Your task to perform on an android device: turn on showing notifications on the lock screen Image 0: 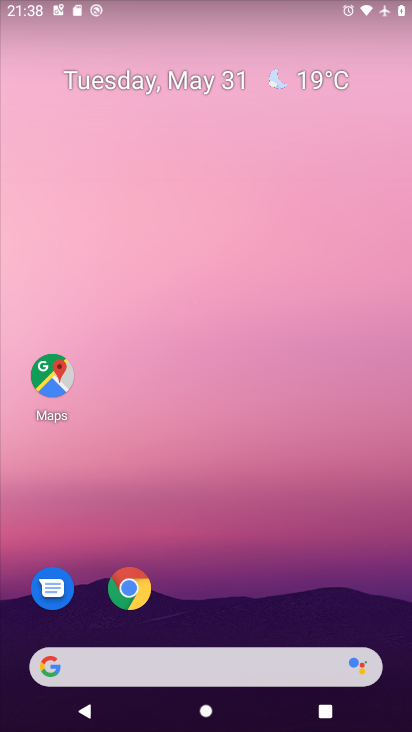
Step 0: press home button
Your task to perform on an android device: turn on showing notifications on the lock screen Image 1: 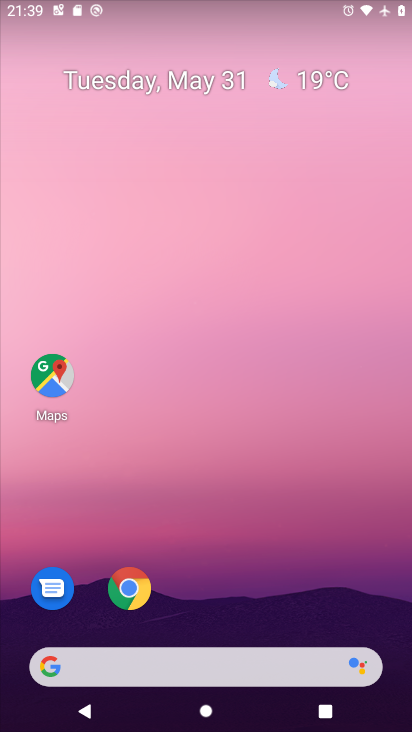
Step 1: drag from (177, 665) to (334, 56)
Your task to perform on an android device: turn on showing notifications on the lock screen Image 2: 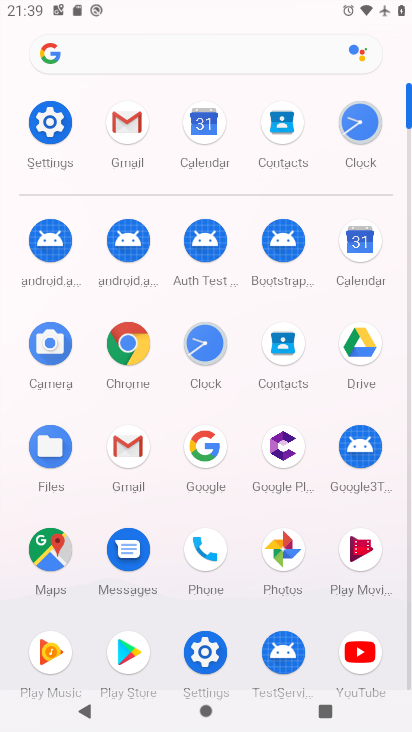
Step 2: click (49, 127)
Your task to perform on an android device: turn on showing notifications on the lock screen Image 3: 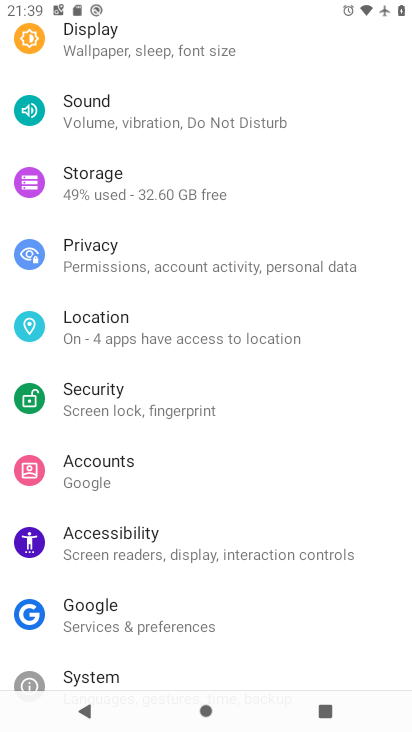
Step 3: drag from (325, 167) to (307, 581)
Your task to perform on an android device: turn on showing notifications on the lock screen Image 4: 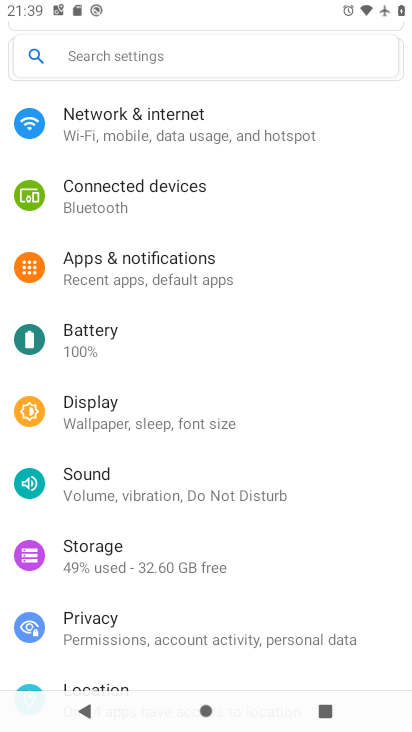
Step 4: click (155, 254)
Your task to perform on an android device: turn on showing notifications on the lock screen Image 5: 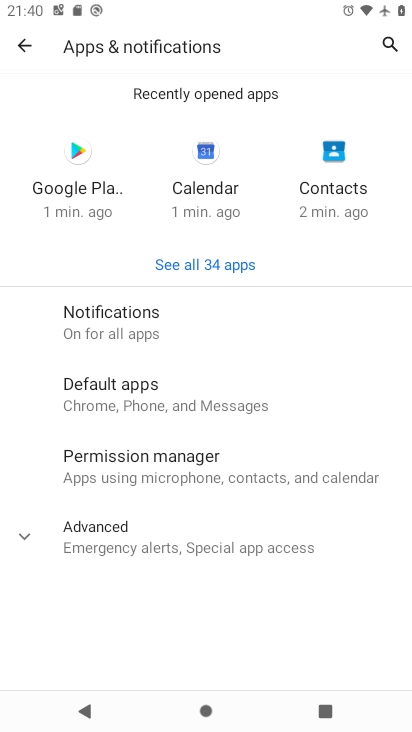
Step 5: click (115, 321)
Your task to perform on an android device: turn on showing notifications on the lock screen Image 6: 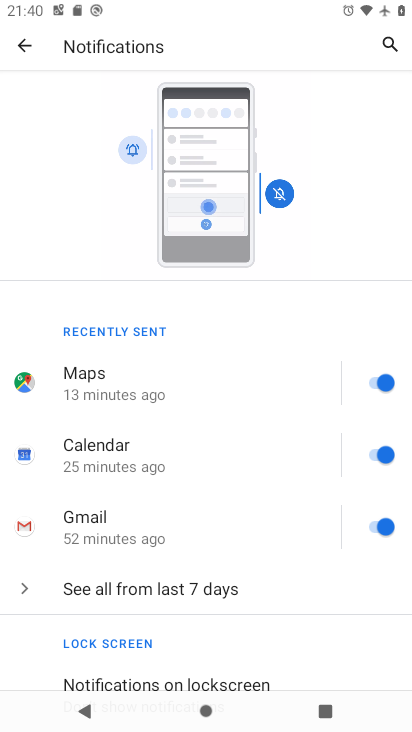
Step 6: drag from (246, 424) to (293, 240)
Your task to perform on an android device: turn on showing notifications on the lock screen Image 7: 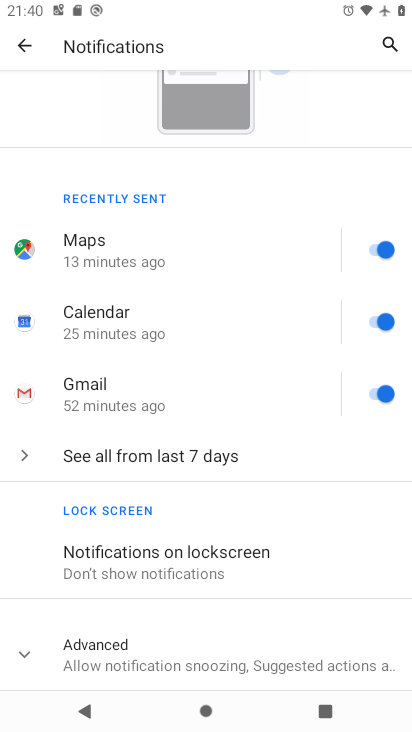
Step 7: click (174, 562)
Your task to perform on an android device: turn on showing notifications on the lock screen Image 8: 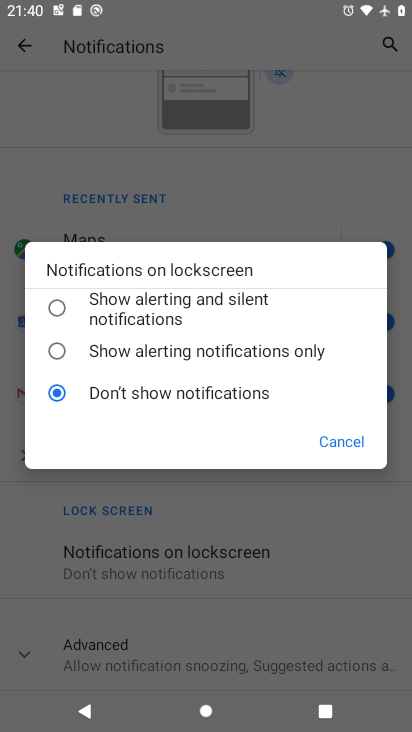
Step 8: click (52, 300)
Your task to perform on an android device: turn on showing notifications on the lock screen Image 9: 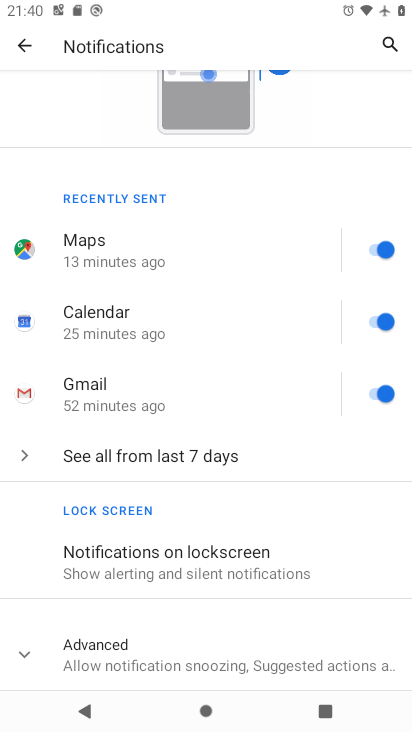
Step 9: task complete